Your task to perform on an android device: Go to eBay Image 0: 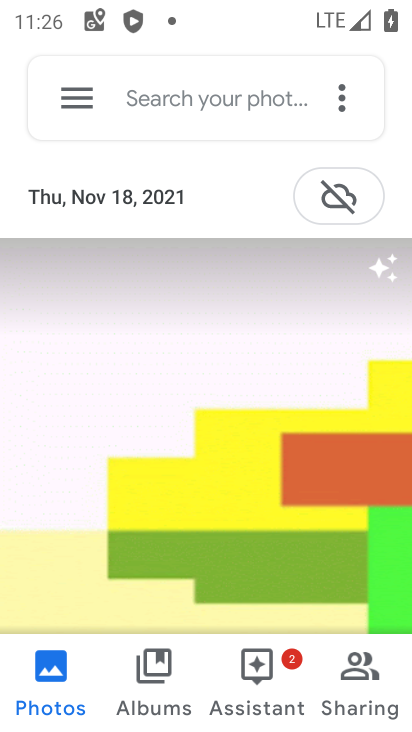
Step 0: press back button
Your task to perform on an android device: Go to eBay Image 1: 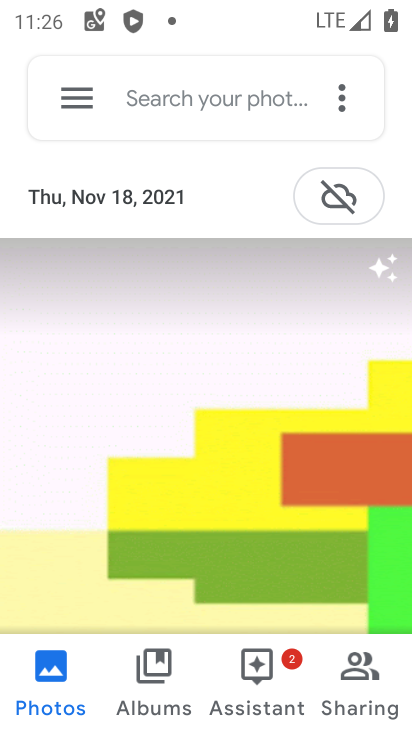
Step 1: press back button
Your task to perform on an android device: Go to eBay Image 2: 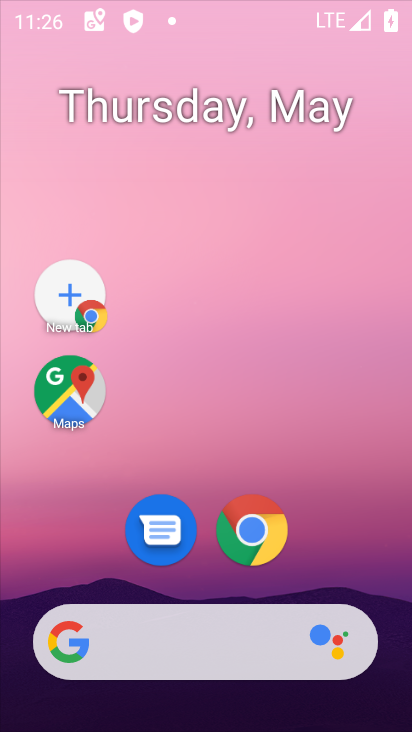
Step 2: press back button
Your task to perform on an android device: Go to eBay Image 3: 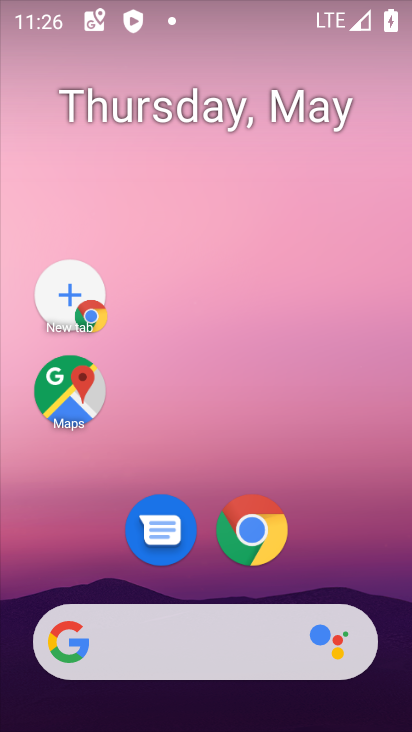
Step 3: drag from (264, 663) to (168, 157)
Your task to perform on an android device: Go to eBay Image 4: 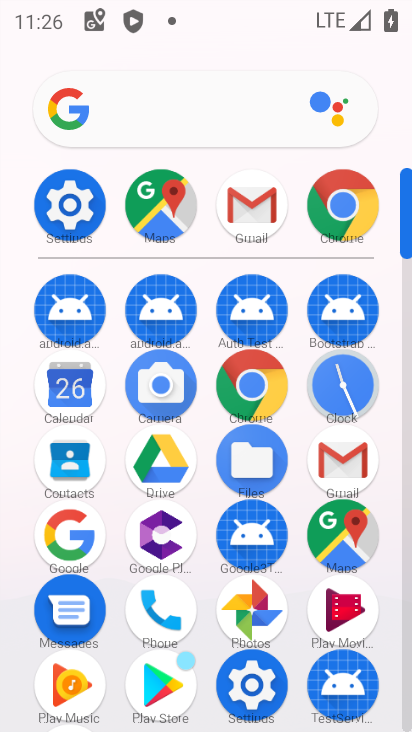
Step 4: click (347, 205)
Your task to perform on an android device: Go to eBay Image 5: 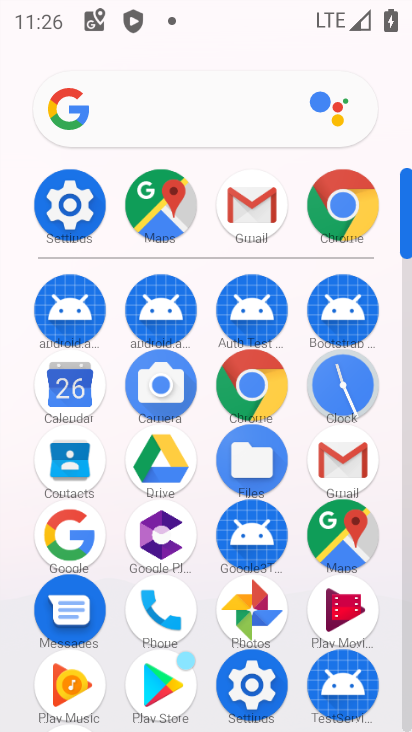
Step 5: click (343, 204)
Your task to perform on an android device: Go to eBay Image 6: 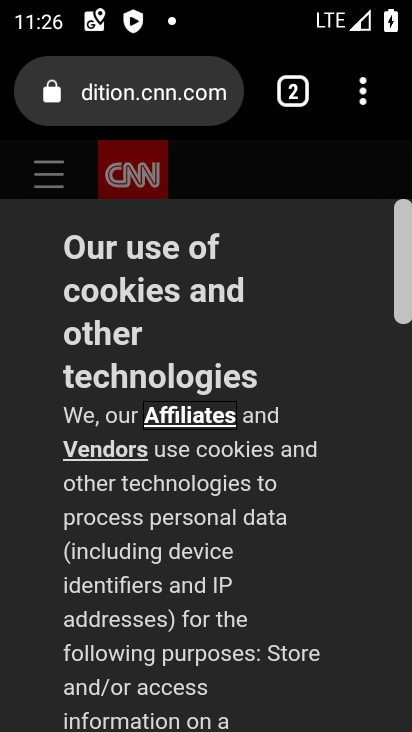
Step 6: drag from (364, 86) to (75, 189)
Your task to perform on an android device: Go to eBay Image 7: 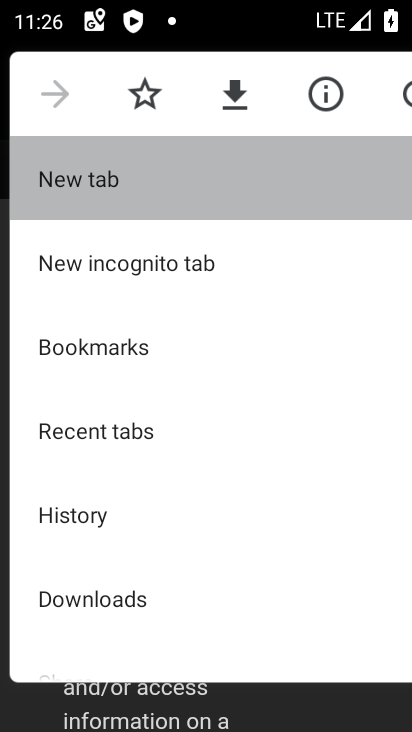
Step 7: click (74, 189)
Your task to perform on an android device: Go to eBay Image 8: 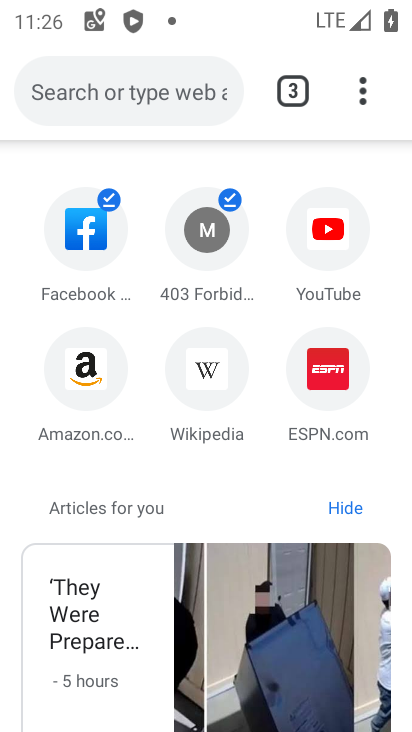
Step 8: click (58, 92)
Your task to perform on an android device: Go to eBay Image 9: 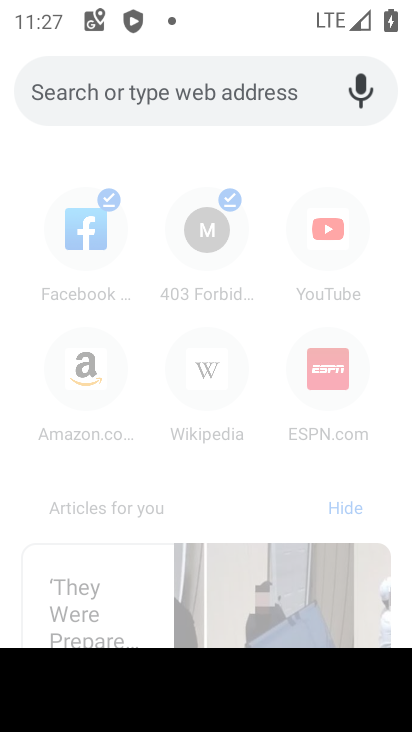
Step 9: type "ebay.com"
Your task to perform on an android device: Go to eBay Image 10: 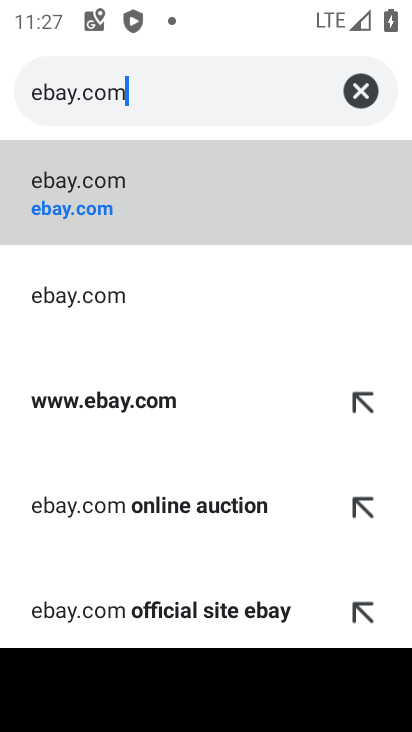
Step 10: click (86, 210)
Your task to perform on an android device: Go to eBay Image 11: 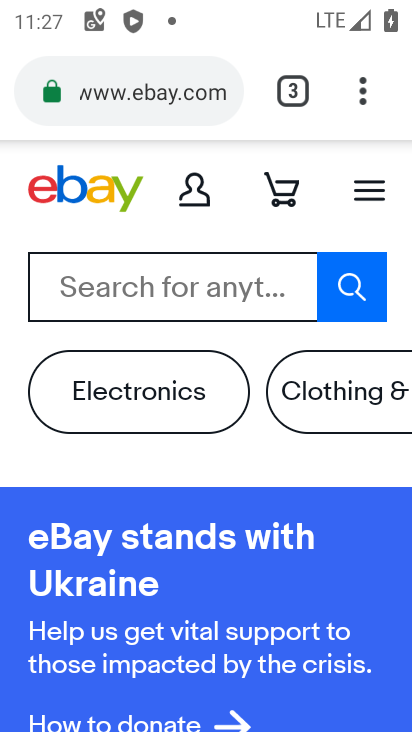
Step 11: task complete